Your task to perform on an android device: turn on bluetooth scan Image 0: 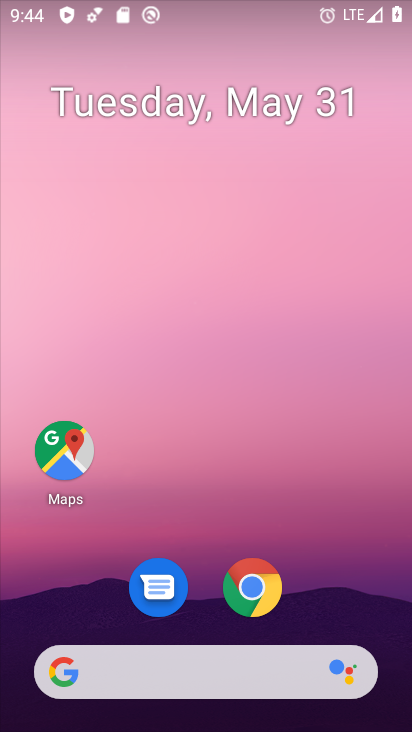
Step 0: drag from (373, 609) to (385, 210)
Your task to perform on an android device: turn on bluetooth scan Image 1: 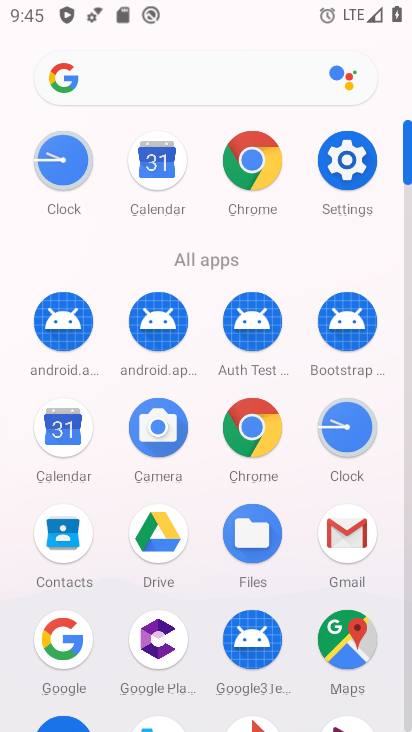
Step 1: drag from (291, 561) to (296, 306)
Your task to perform on an android device: turn on bluetooth scan Image 2: 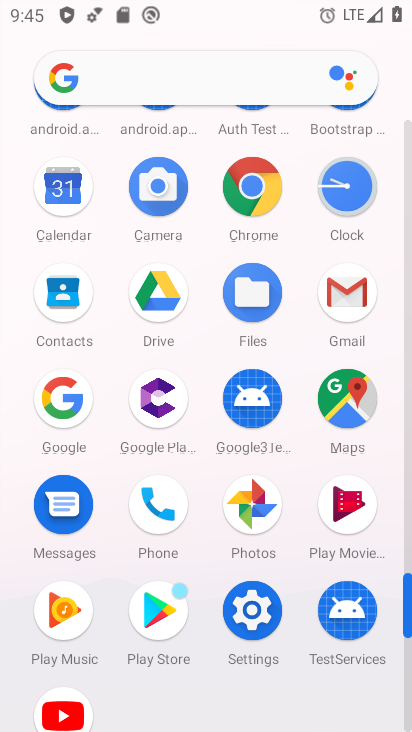
Step 2: drag from (303, 207) to (293, 353)
Your task to perform on an android device: turn on bluetooth scan Image 3: 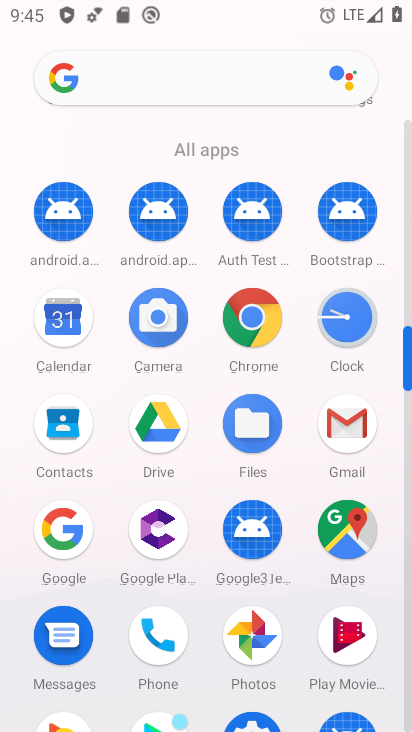
Step 3: drag from (299, 165) to (290, 307)
Your task to perform on an android device: turn on bluetooth scan Image 4: 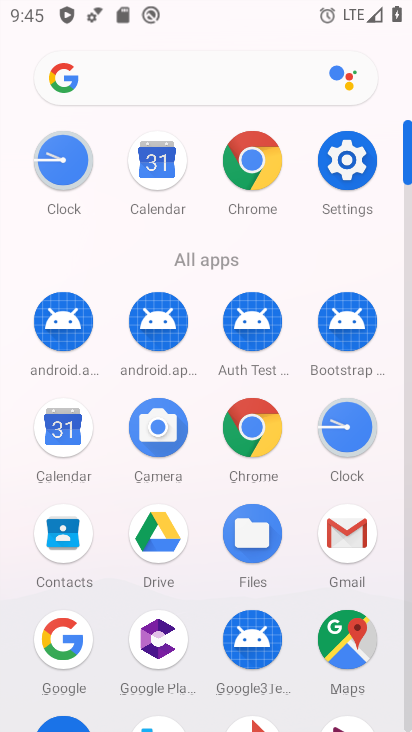
Step 4: drag from (300, 156) to (292, 303)
Your task to perform on an android device: turn on bluetooth scan Image 5: 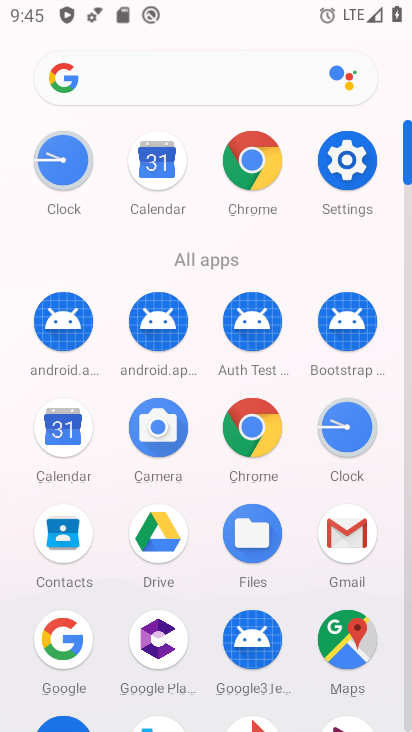
Step 5: click (341, 179)
Your task to perform on an android device: turn on bluetooth scan Image 6: 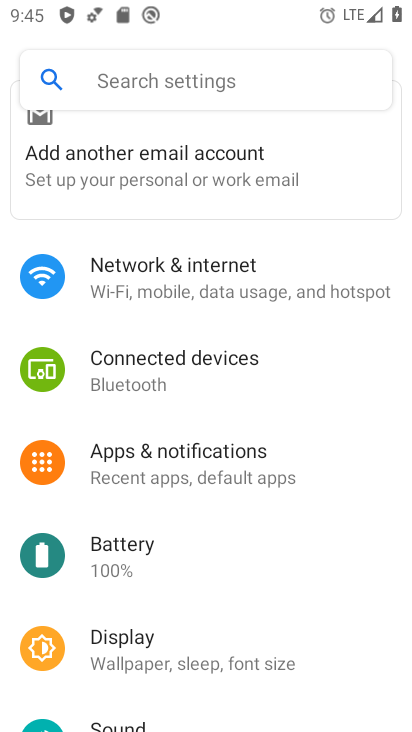
Step 6: drag from (344, 559) to (350, 301)
Your task to perform on an android device: turn on bluetooth scan Image 7: 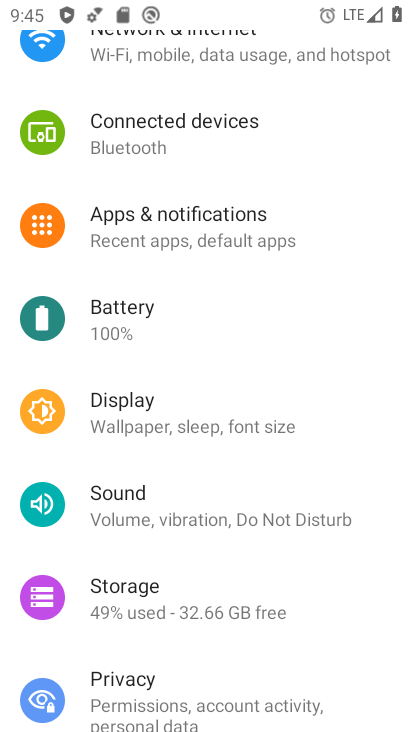
Step 7: drag from (336, 467) to (341, 307)
Your task to perform on an android device: turn on bluetooth scan Image 8: 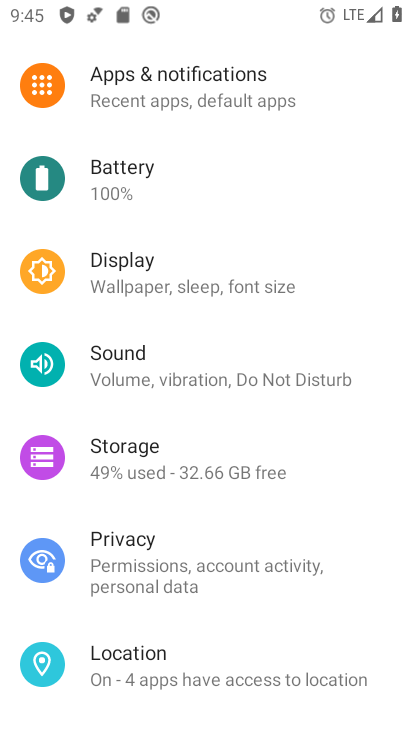
Step 8: drag from (339, 518) to (361, 260)
Your task to perform on an android device: turn on bluetooth scan Image 9: 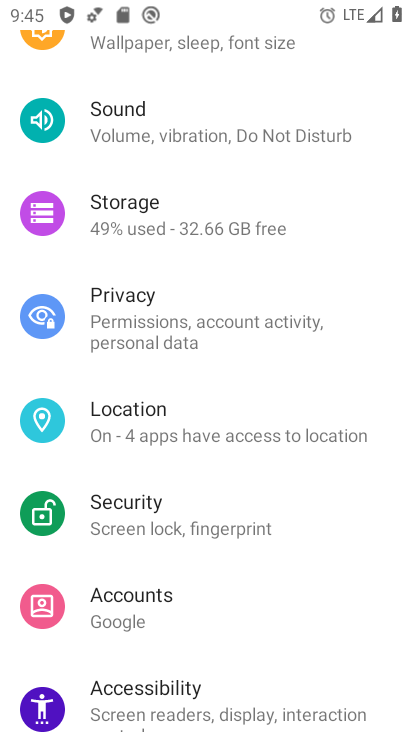
Step 9: drag from (337, 541) to (337, 355)
Your task to perform on an android device: turn on bluetooth scan Image 10: 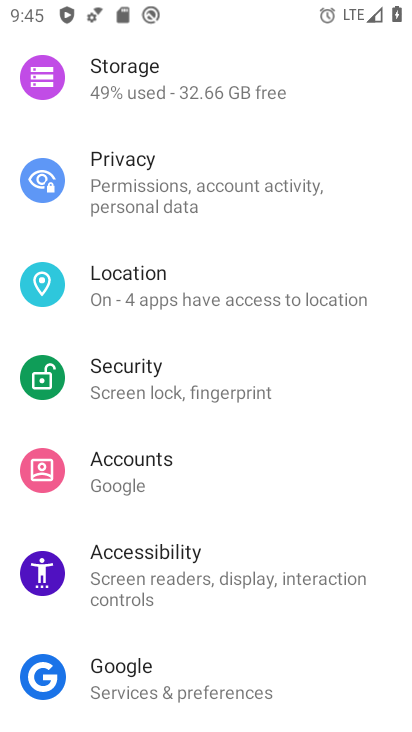
Step 10: click (199, 276)
Your task to perform on an android device: turn on bluetooth scan Image 11: 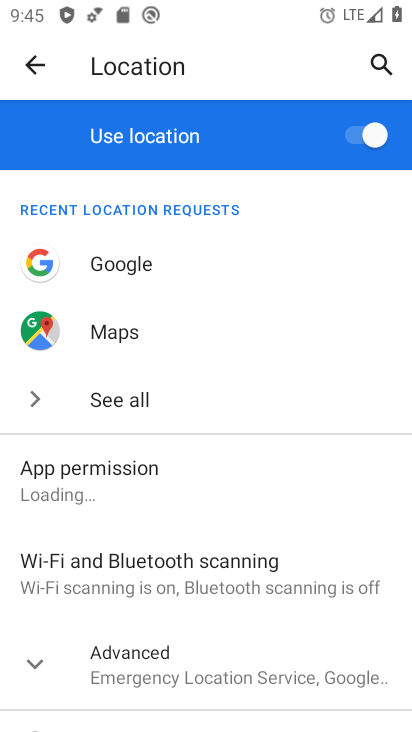
Step 11: drag from (315, 518) to (299, 306)
Your task to perform on an android device: turn on bluetooth scan Image 12: 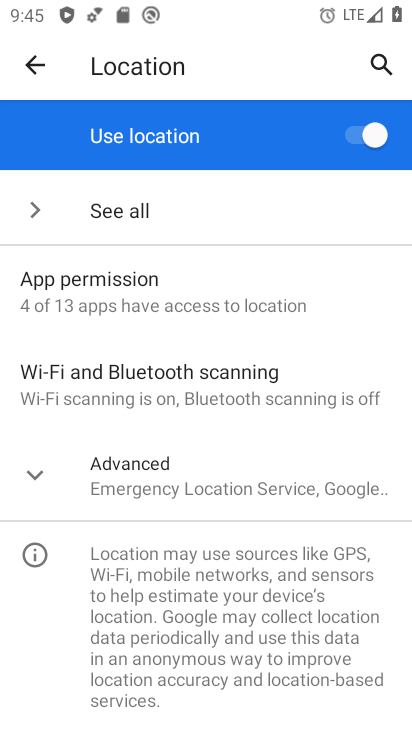
Step 12: click (319, 377)
Your task to perform on an android device: turn on bluetooth scan Image 13: 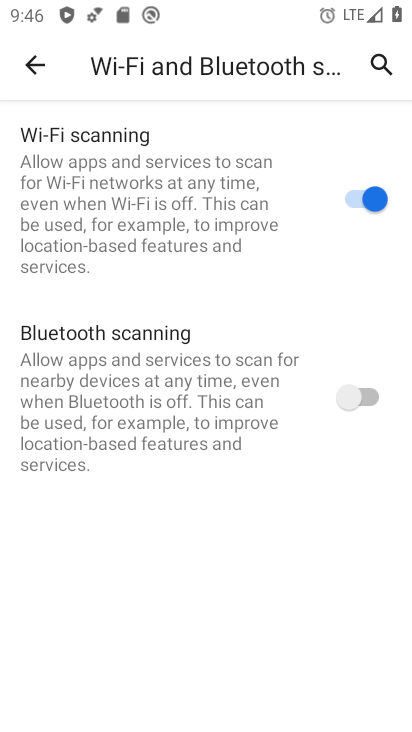
Step 13: click (360, 399)
Your task to perform on an android device: turn on bluetooth scan Image 14: 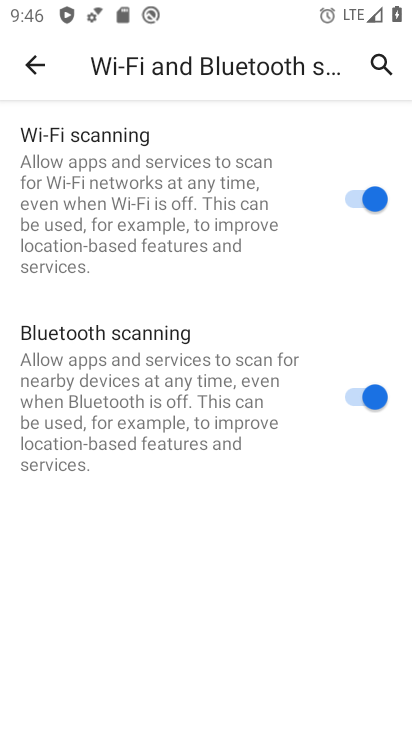
Step 14: task complete